Your task to perform on an android device: find snoozed emails in the gmail app Image 0: 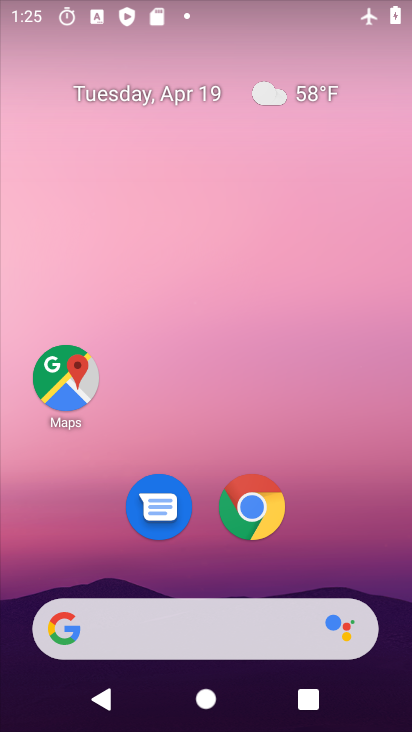
Step 0: drag from (206, 572) to (215, 150)
Your task to perform on an android device: find snoozed emails in the gmail app Image 1: 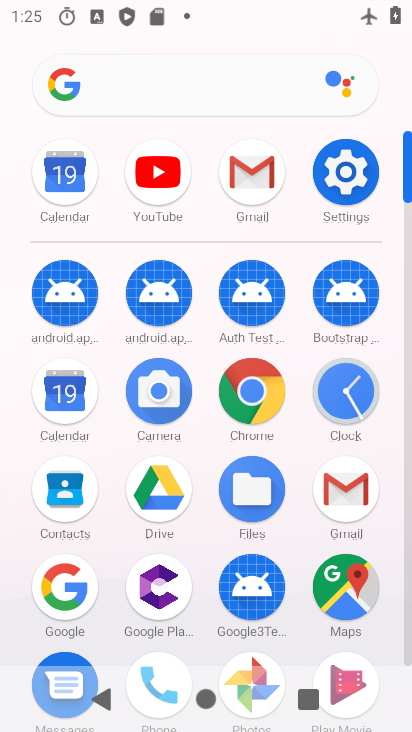
Step 1: click (337, 494)
Your task to perform on an android device: find snoozed emails in the gmail app Image 2: 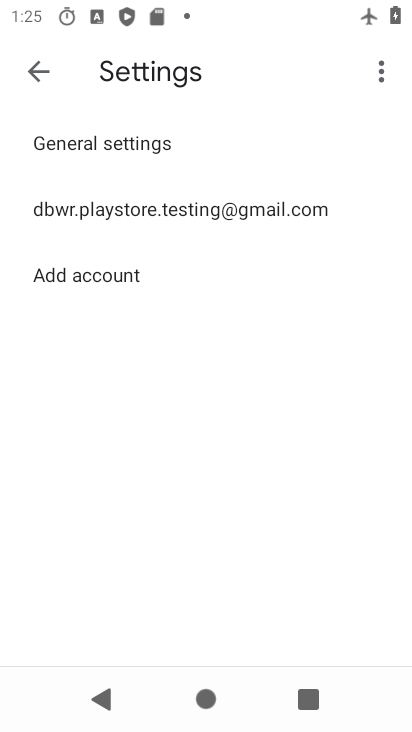
Step 2: click (29, 82)
Your task to perform on an android device: find snoozed emails in the gmail app Image 3: 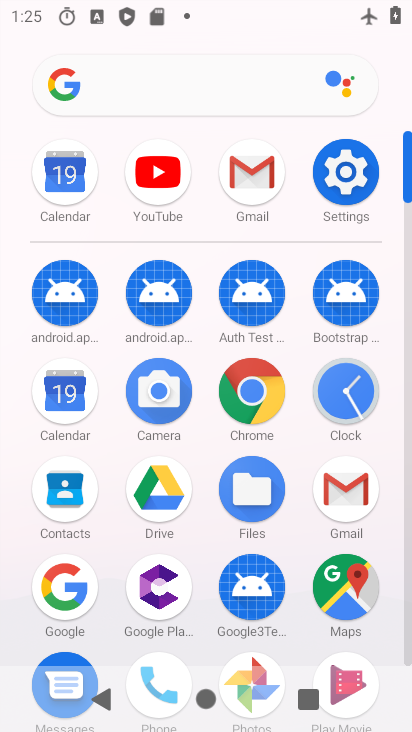
Step 3: click (336, 485)
Your task to perform on an android device: find snoozed emails in the gmail app Image 4: 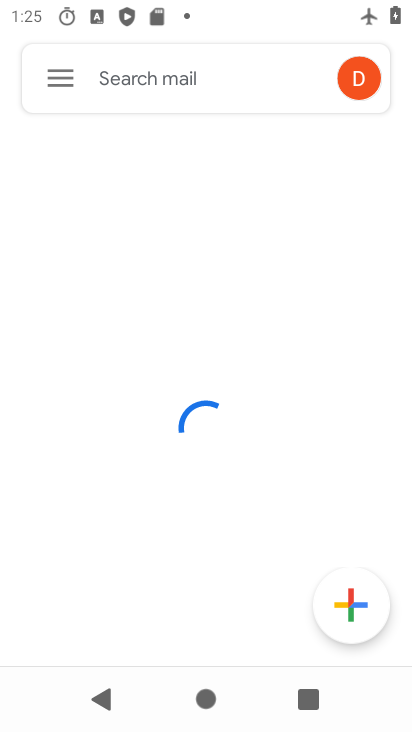
Step 4: click (65, 70)
Your task to perform on an android device: find snoozed emails in the gmail app Image 5: 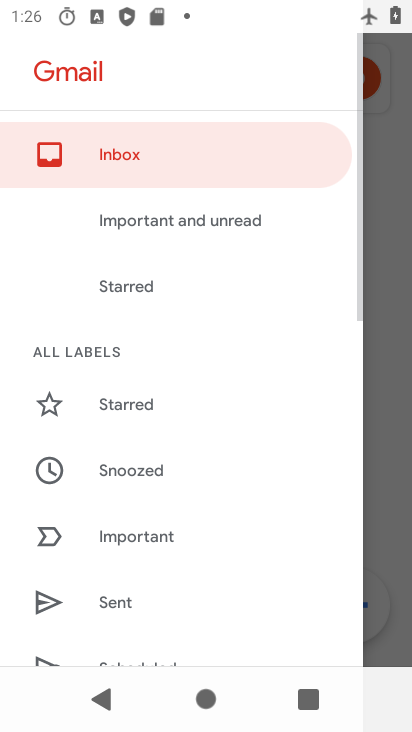
Step 5: click (144, 472)
Your task to perform on an android device: find snoozed emails in the gmail app Image 6: 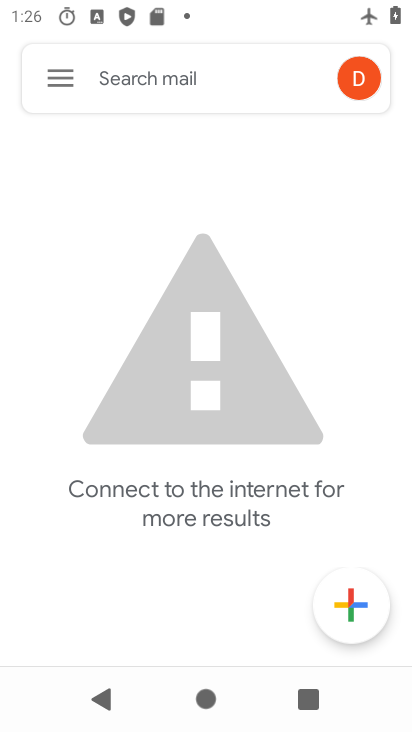
Step 6: task complete